Your task to perform on an android device: toggle show notifications on the lock screen Image 0: 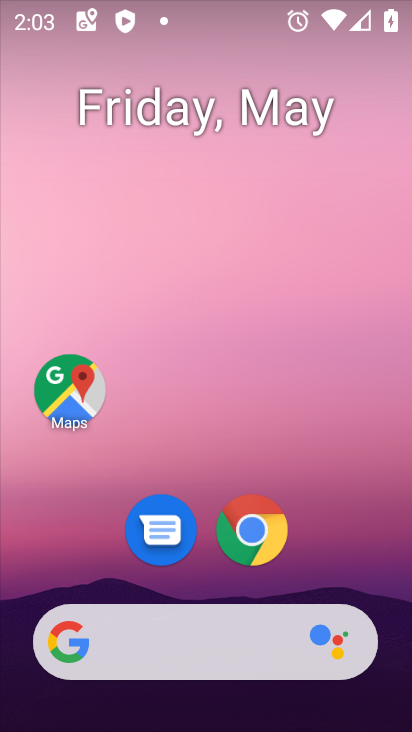
Step 0: drag from (328, 575) to (281, 0)
Your task to perform on an android device: toggle show notifications on the lock screen Image 1: 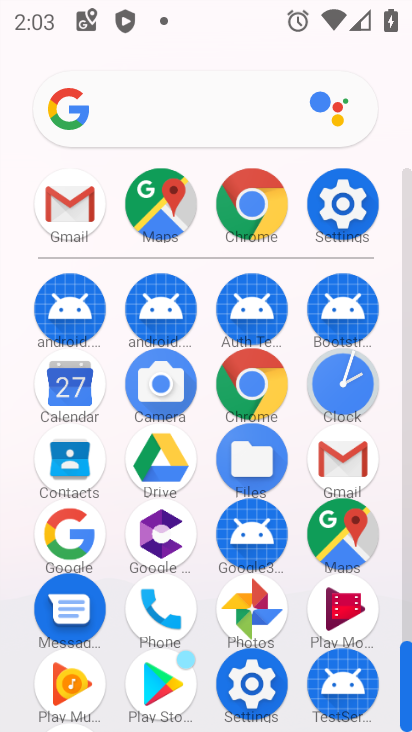
Step 1: click (345, 203)
Your task to perform on an android device: toggle show notifications on the lock screen Image 2: 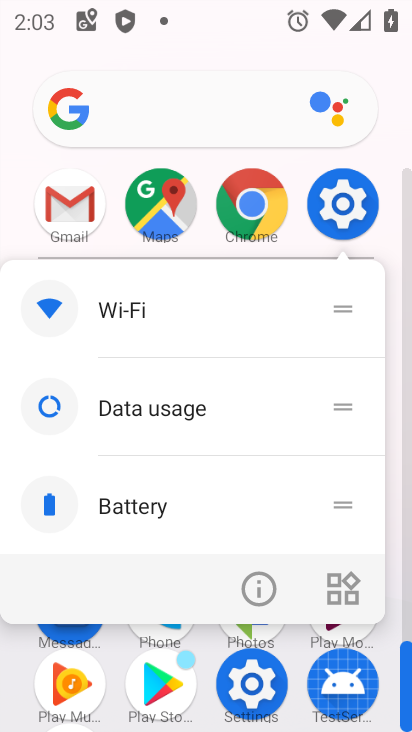
Step 2: click (327, 220)
Your task to perform on an android device: toggle show notifications on the lock screen Image 3: 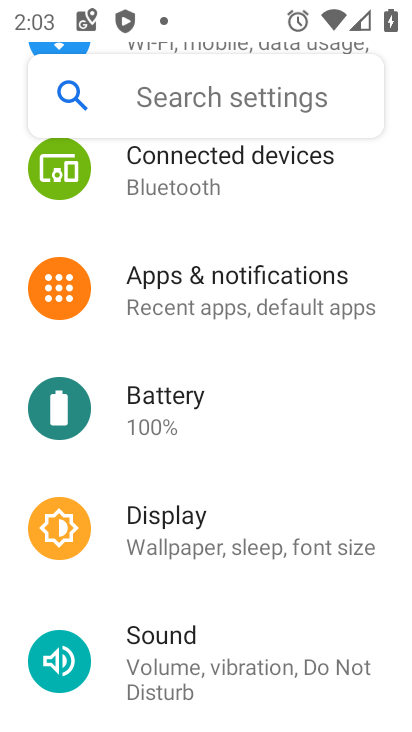
Step 3: click (219, 272)
Your task to perform on an android device: toggle show notifications on the lock screen Image 4: 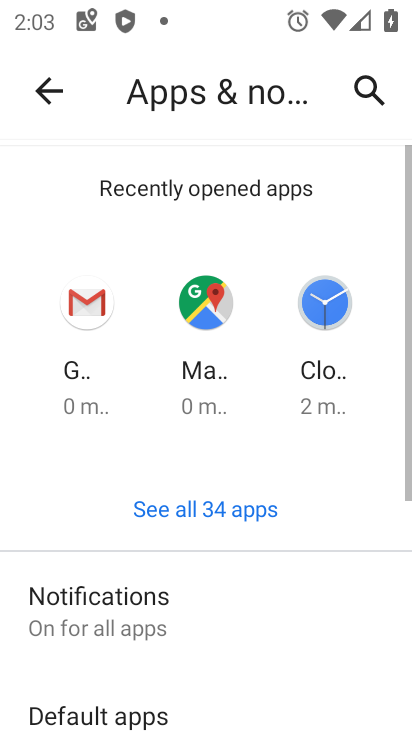
Step 4: click (204, 595)
Your task to perform on an android device: toggle show notifications on the lock screen Image 5: 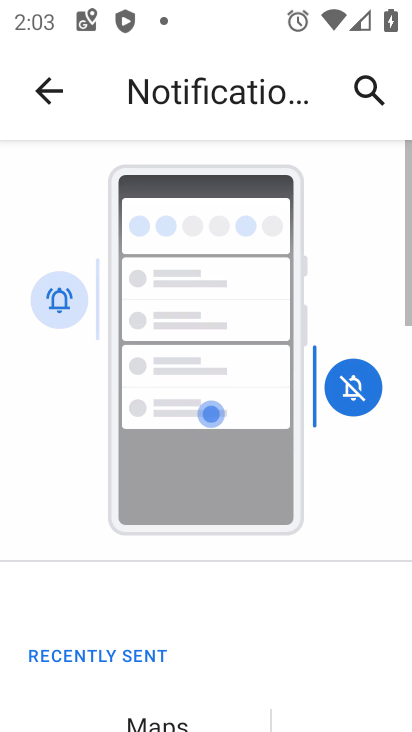
Step 5: drag from (203, 629) to (228, 11)
Your task to perform on an android device: toggle show notifications on the lock screen Image 6: 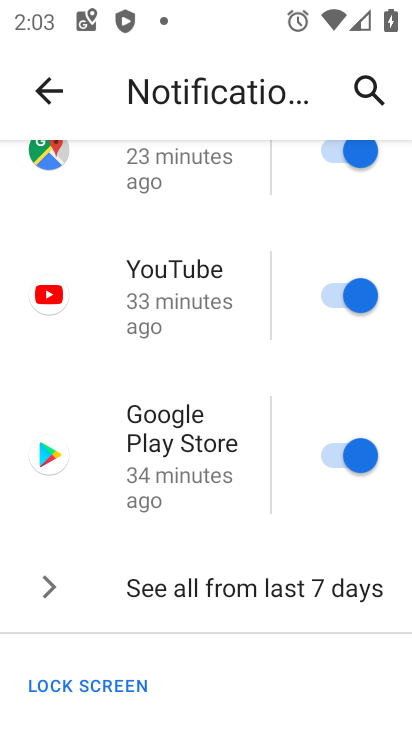
Step 6: drag from (153, 512) to (179, 86)
Your task to perform on an android device: toggle show notifications on the lock screen Image 7: 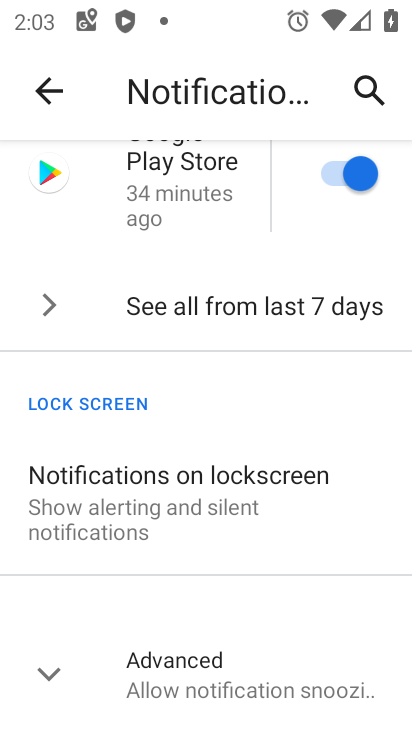
Step 7: click (147, 515)
Your task to perform on an android device: toggle show notifications on the lock screen Image 8: 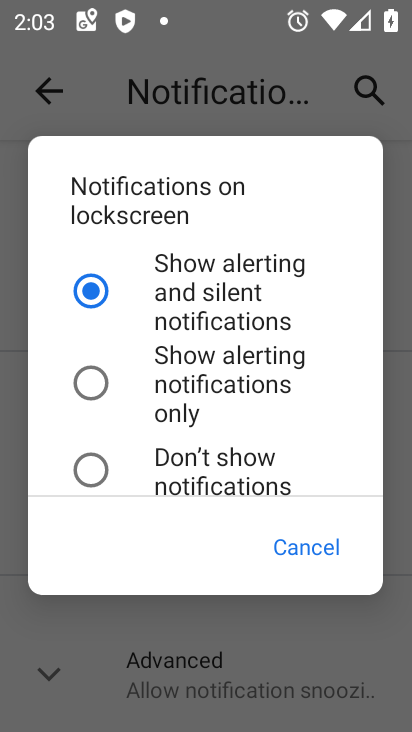
Step 8: click (200, 366)
Your task to perform on an android device: toggle show notifications on the lock screen Image 9: 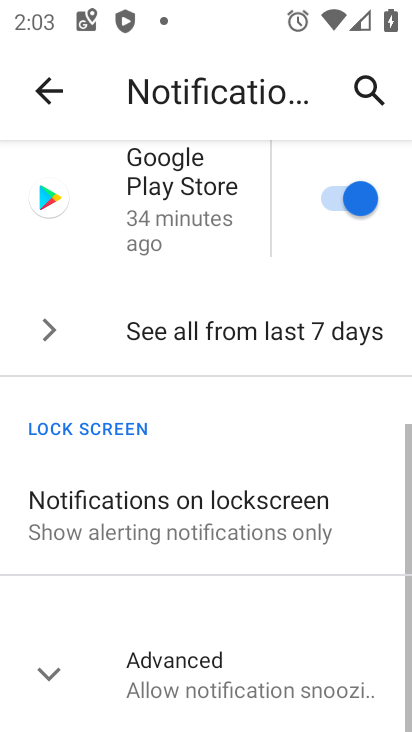
Step 9: task complete